Your task to perform on an android device: turn off location Image 0: 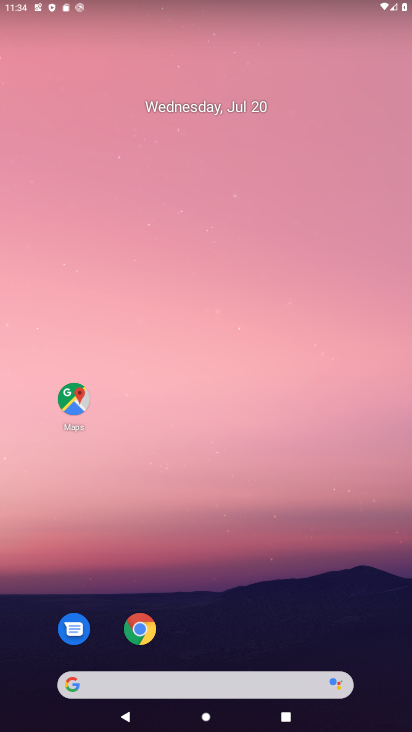
Step 0: drag from (156, 680) to (272, 182)
Your task to perform on an android device: turn off location Image 1: 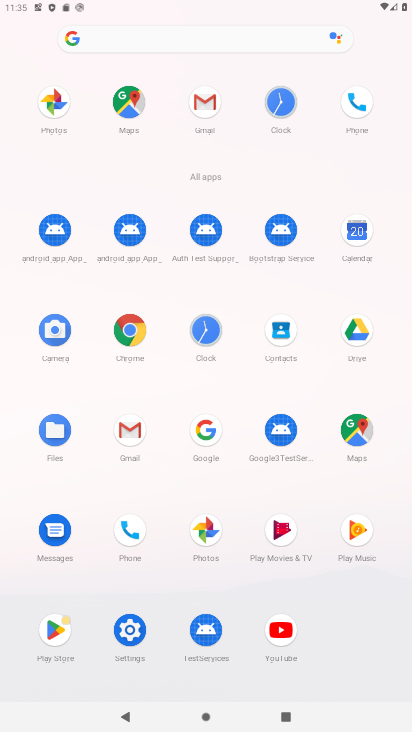
Step 1: click (118, 623)
Your task to perform on an android device: turn off location Image 2: 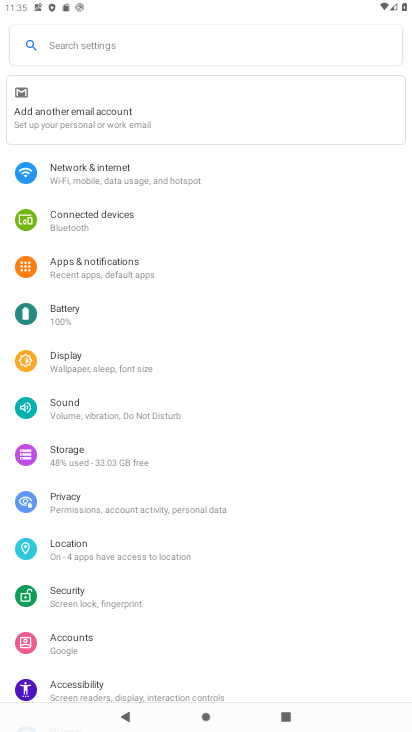
Step 2: click (135, 548)
Your task to perform on an android device: turn off location Image 3: 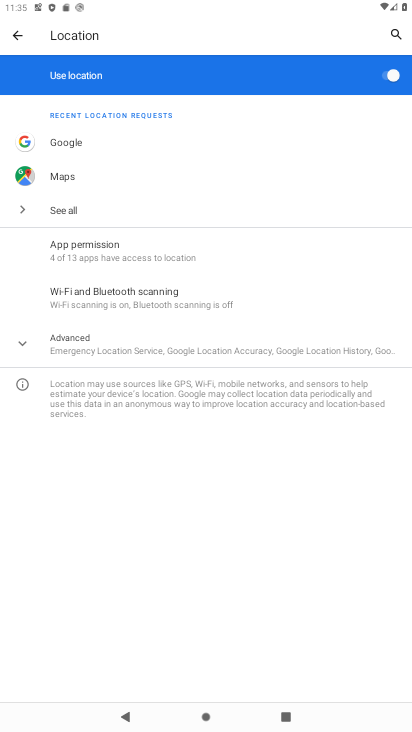
Step 3: click (388, 78)
Your task to perform on an android device: turn off location Image 4: 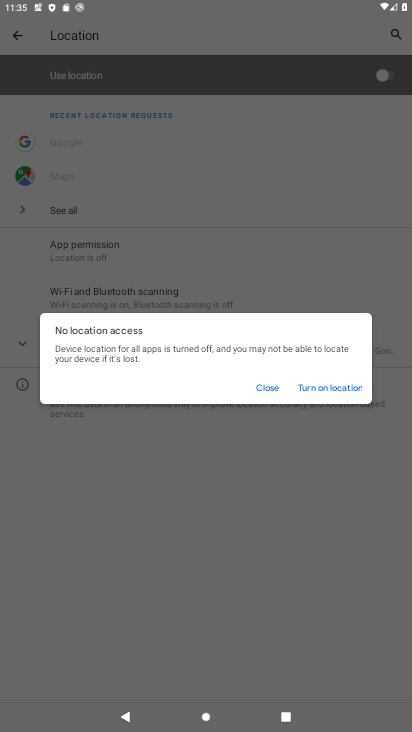
Step 4: task complete